Your task to perform on an android device: visit the assistant section in the google photos Image 0: 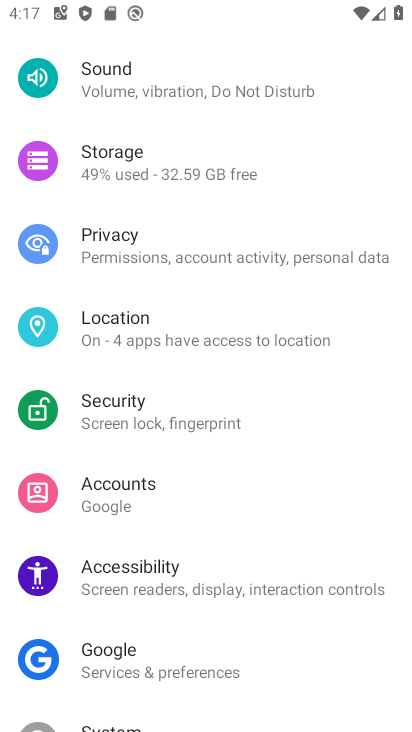
Step 0: press home button
Your task to perform on an android device: visit the assistant section in the google photos Image 1: 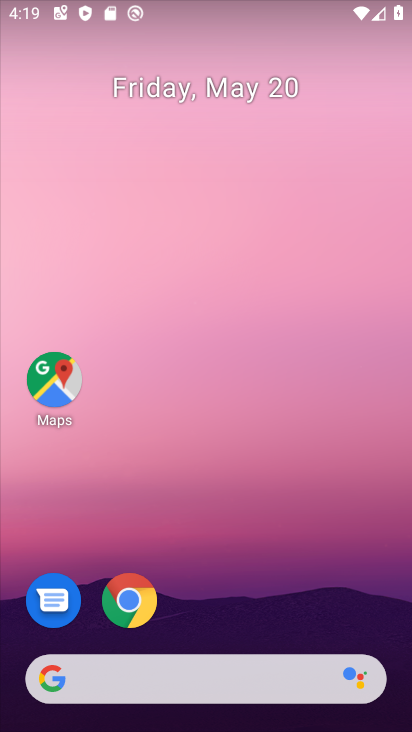
Step 1: drag from (251, 540) to (275, 22)
Your task to perform on an android device: visit the assistant section in the google photos Image 2: 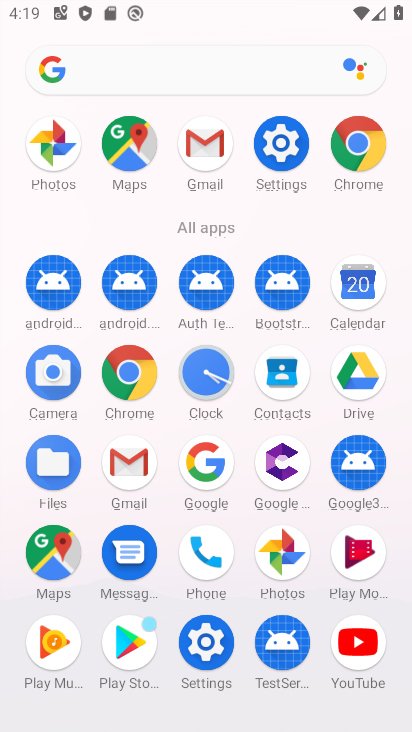
Step 2: click (56, 138)
Your task to perform on an android device: visit the assistant section in the google photos Image 3: 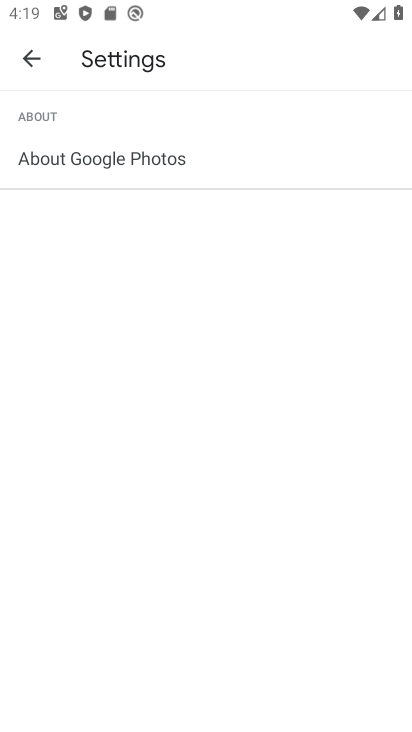
Step 3: click (31, 52)
Your task to perform on an android device: visit the assistant section in the google photos Image 4: 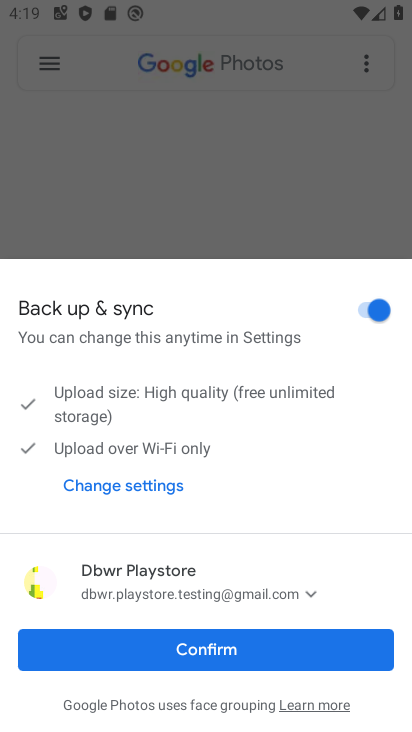
Step 4: click (257, 653)
Your task to perform on an android device: visit the assistant section in the google photos Image 5: 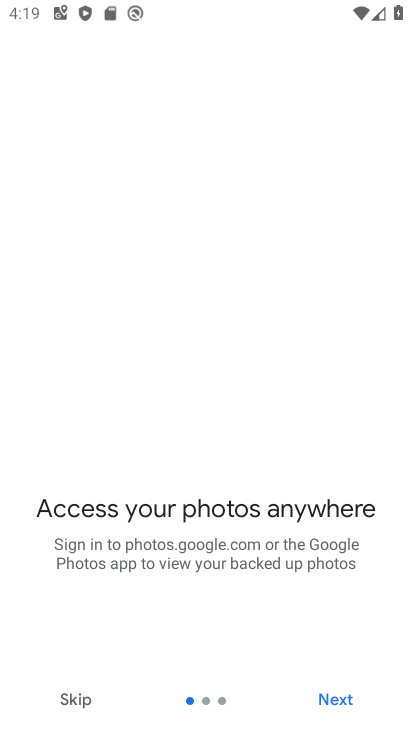
Step 5: click (328, 700)
Your task to perform on an android device: visit the assistant section in the google photos Image 6: 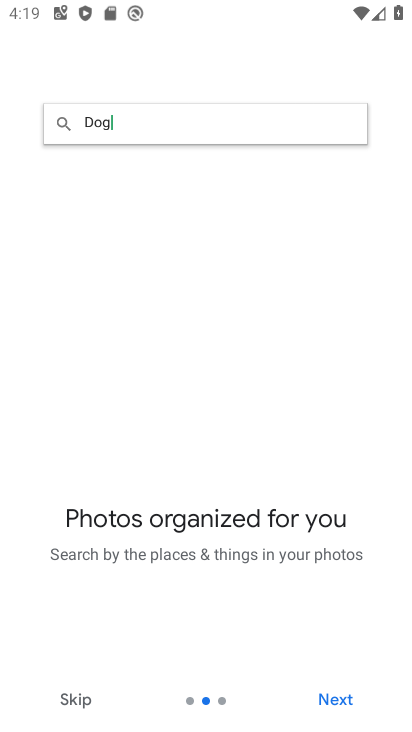
Step 6: click (334, 695)
Your task to perform on an android device: visit the assistant section in the google photos Image 7: 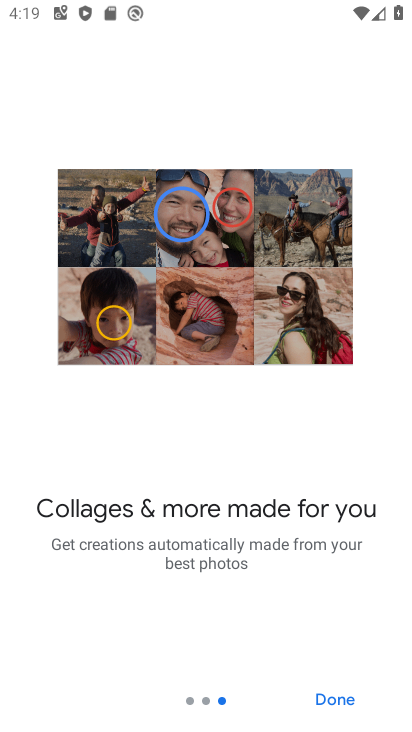
Step 7: click (334, 695)
Your task to perform on an android device: visit the assistant section in the google photos Image 8: 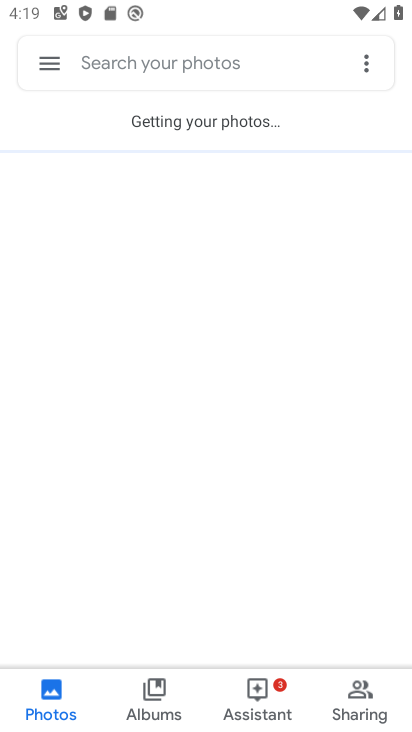
Step 8: click (265, 685)
Your task to perform on an android device: visit the assistant section in the google photos Image 9: 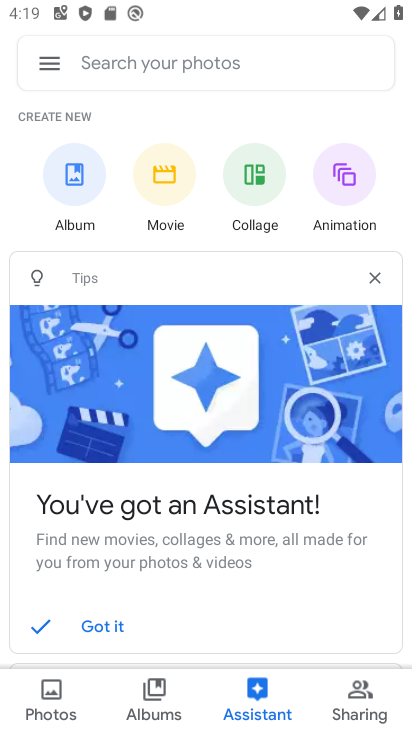
Step 9: task complete